Your task to perform on an android device: turn off translation in the chrome app Image 0: 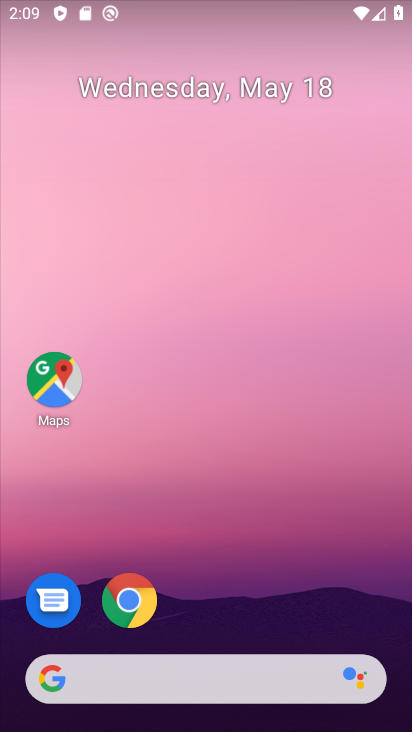
Step 0: press home button
Your task to perform on an android device: turn off translation in the chrome app Image 1: 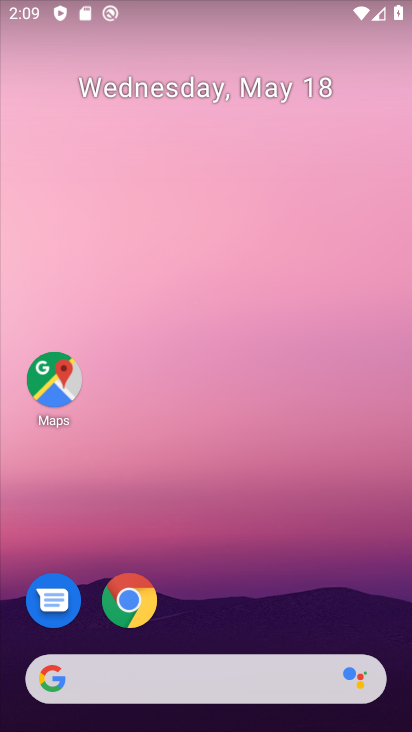
Step 1: click (130, 597)
Your task to perform on an android device: turn off translation in the chrome app Image 2: 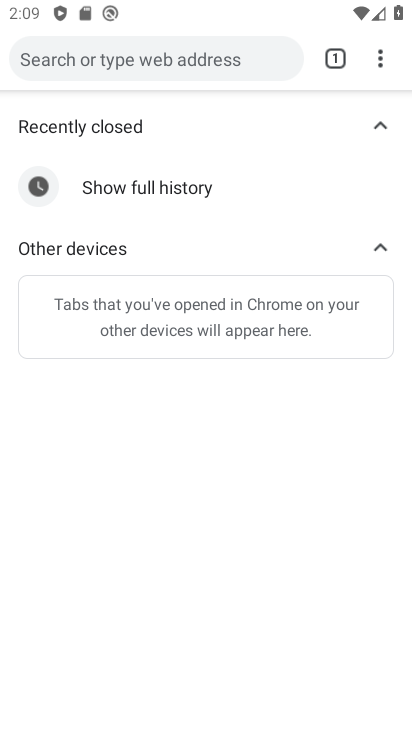
Step 2: drag from (376, 64) to (234, 491)
Your task to perform on an android device: turn off translation in the chrome app Image 3: 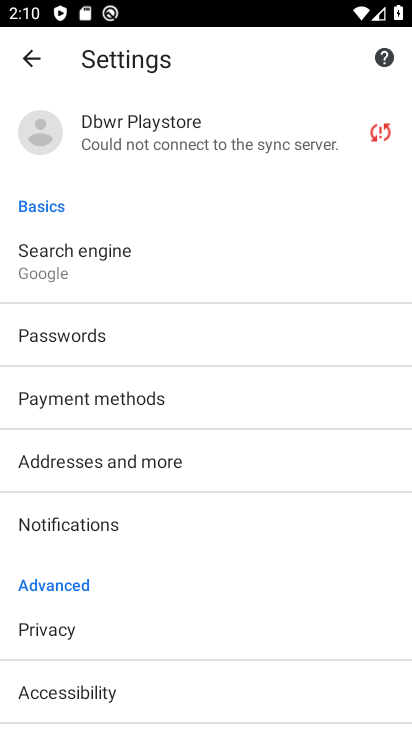
Step 3: drag from (172, 633) to (286, 289)
Your task to perform on an android device: turn off translation in the chrome app Image 4: 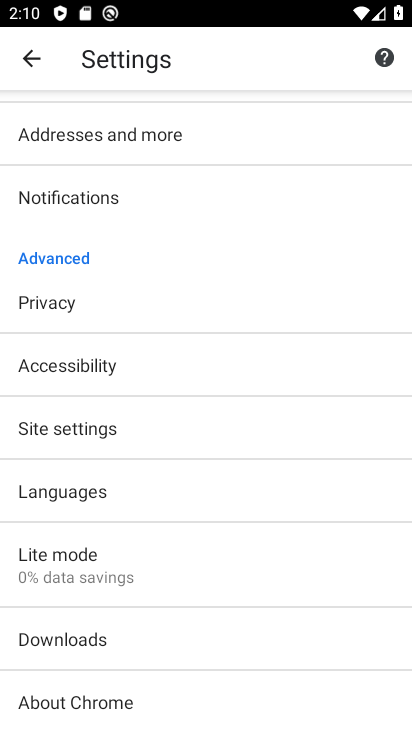
Step 4: click (85, 491)
Your task to perform on an android device: turn off translation in the chrome app Image 5: 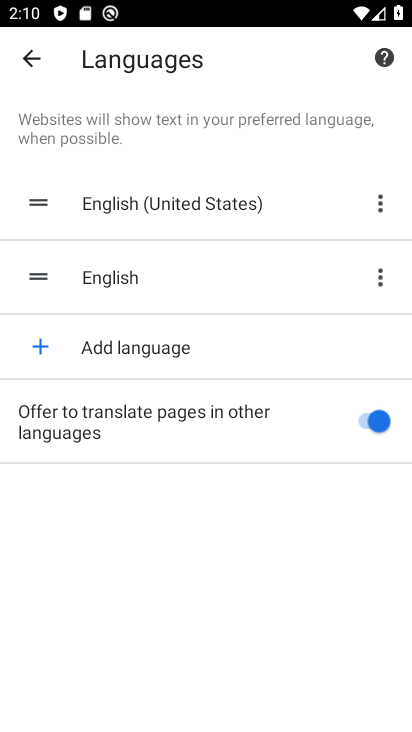
Step 5: click (363, 423)
Your task to perform on an android device: turn off translation in the chrome app Image 6: 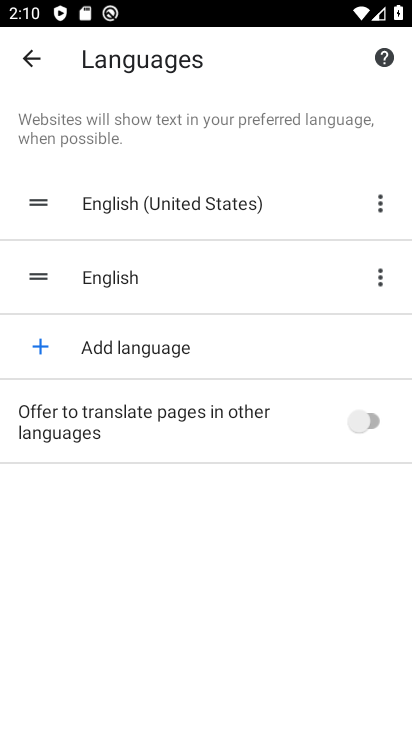
Step 6: task complete